Your task to perform on an android device: Turn on the flashlight Image 0: 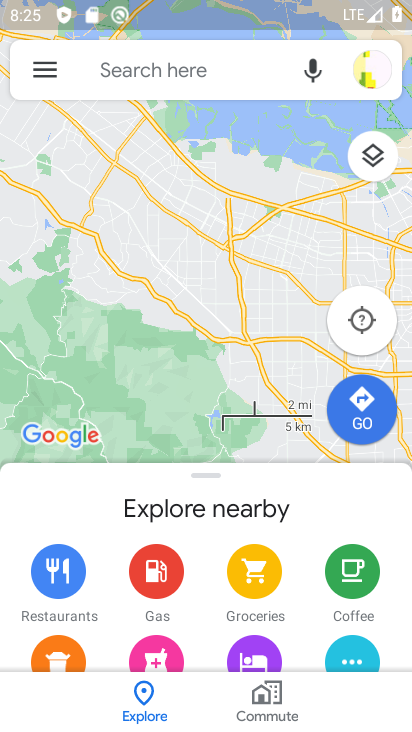
Step 0: press home button
Your task to perform on an android device: Turn on the flashlight Image 1: 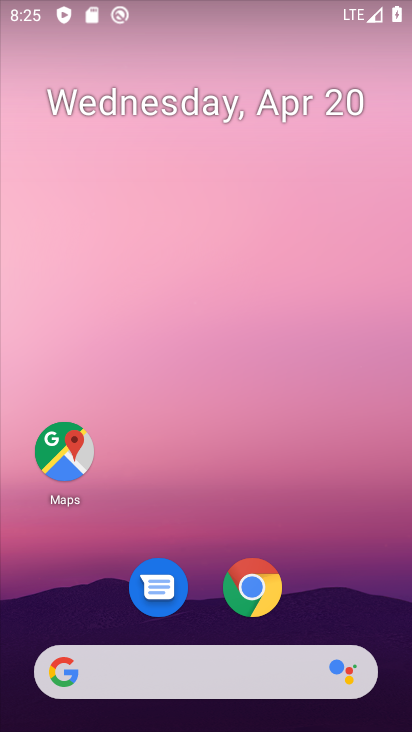
Step 1: drag from (295, 10) to (303, 347)
Your task to perform on an android device: Turn on the flashlight Image 2: 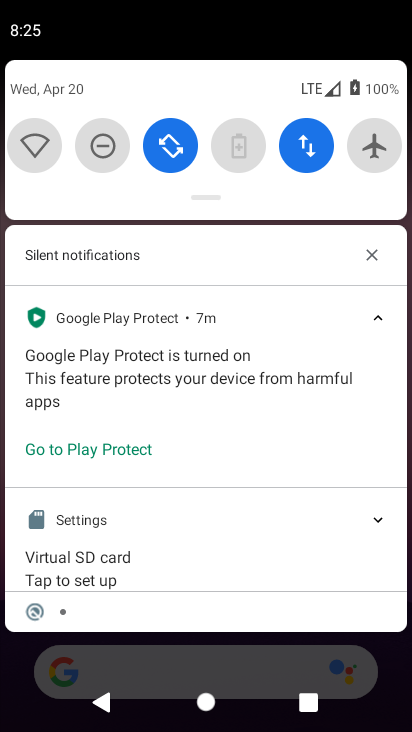
Step 2: drag from (264, 89) to (256, 349)
Your task to perform on an android device: Turn on the flashlight Image 3: 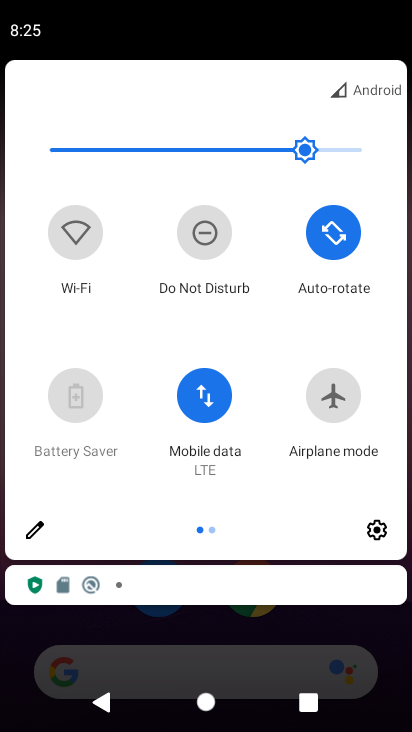
Step 3: click (36, 526)
Your task to perform on an android device: Turn on the flashlight Image 4: 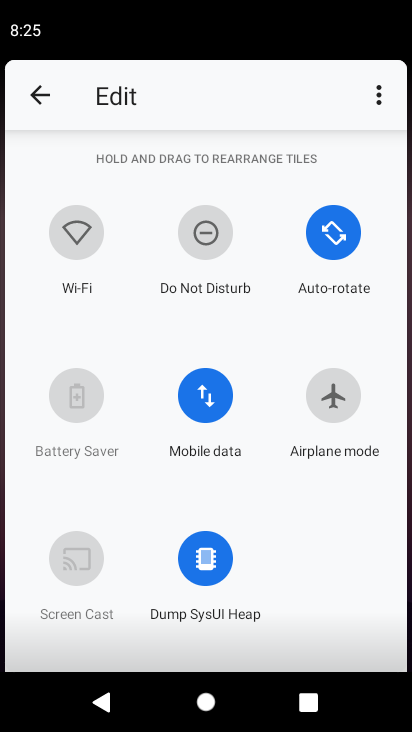
Step 4: task complete